Your task to perform on an android device: Go to Yahoo.com Image 0: 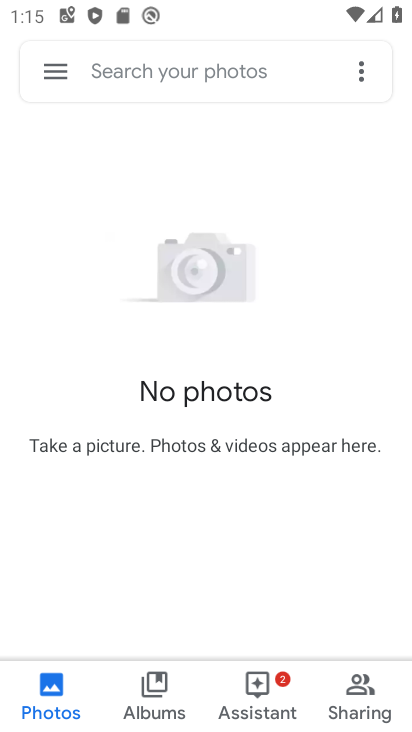
Step 0: press home button
Your task to perform on an android device: Go to Yahoo.com Image 1: 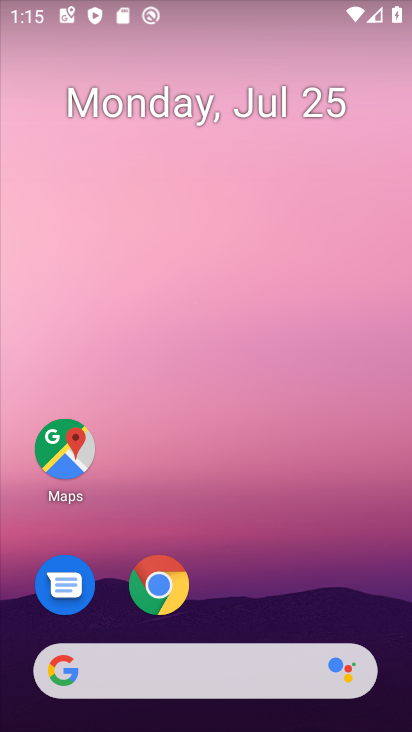
Step 1: click (237, 677)
Your task to perform on an android device: Go to Yahoo.com Image 2: 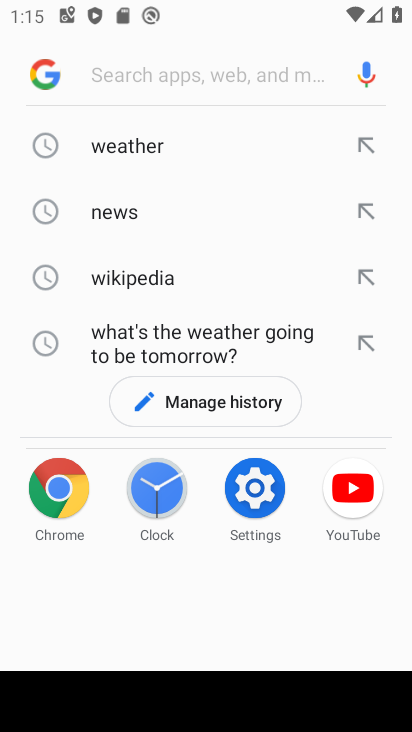
Step 2: type "yahoo.com"
Your task to perform on an android device: Go to Yahoo.com Image 3: 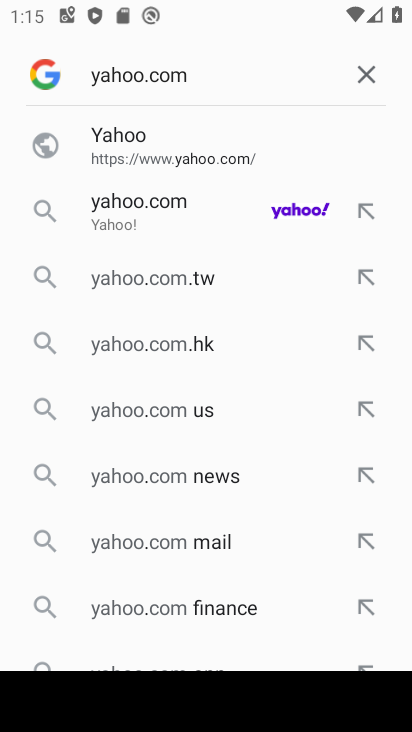
Step 3: click (304, 204)
Your task to perform on an android device: Go to Yahoo.com Image 4: 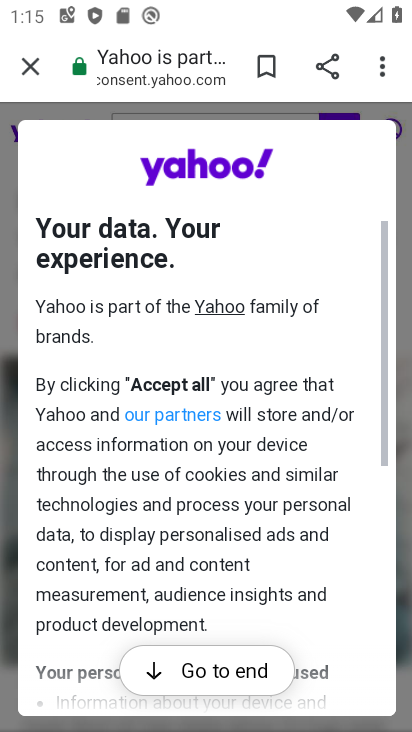
Step 4: click (217, 677)
Your task to perform on an android device: Go to Yahoo.com Image 5: 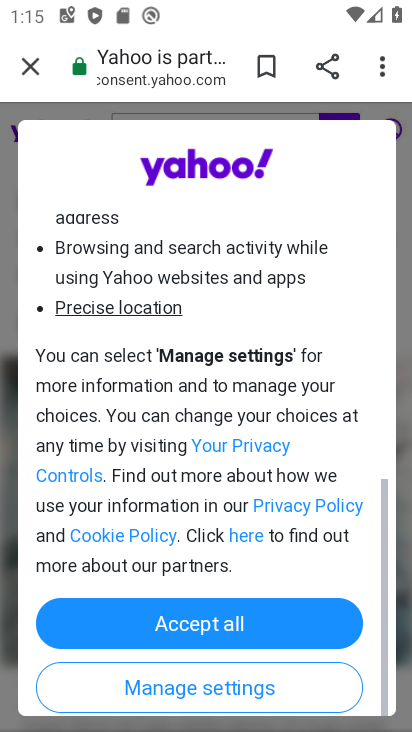
Step 5: click (227, 630)
Your task to perform on an android device: Go to Yahoo.com Image 6: 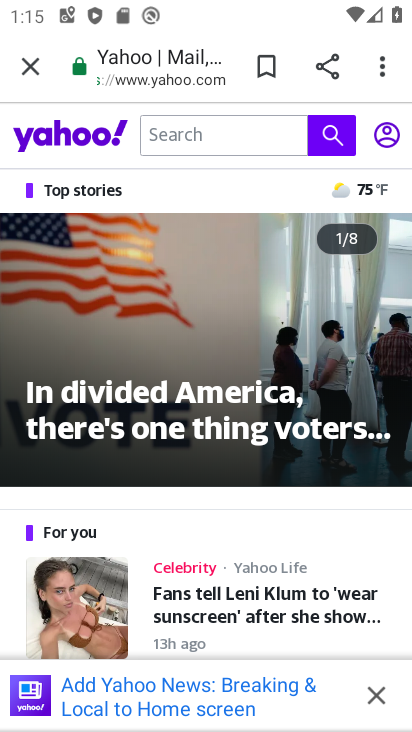
Step 6: click (265, 400)
Your task to perform on an android device: Go to Yahoo.com Image 7: 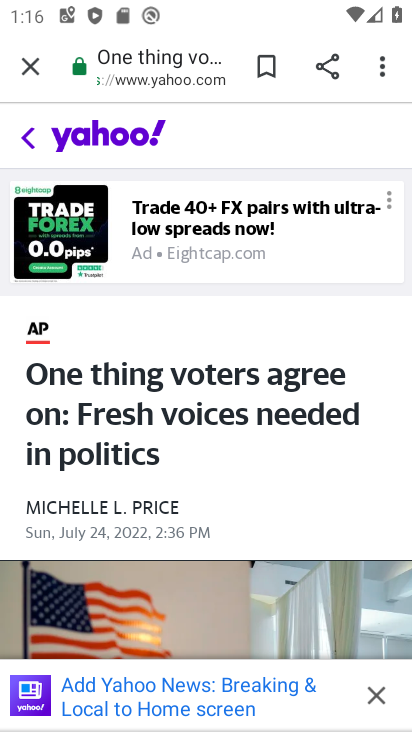
Step 7: task complete